Your task to perform on an android device: all mails in gmail Image 0: 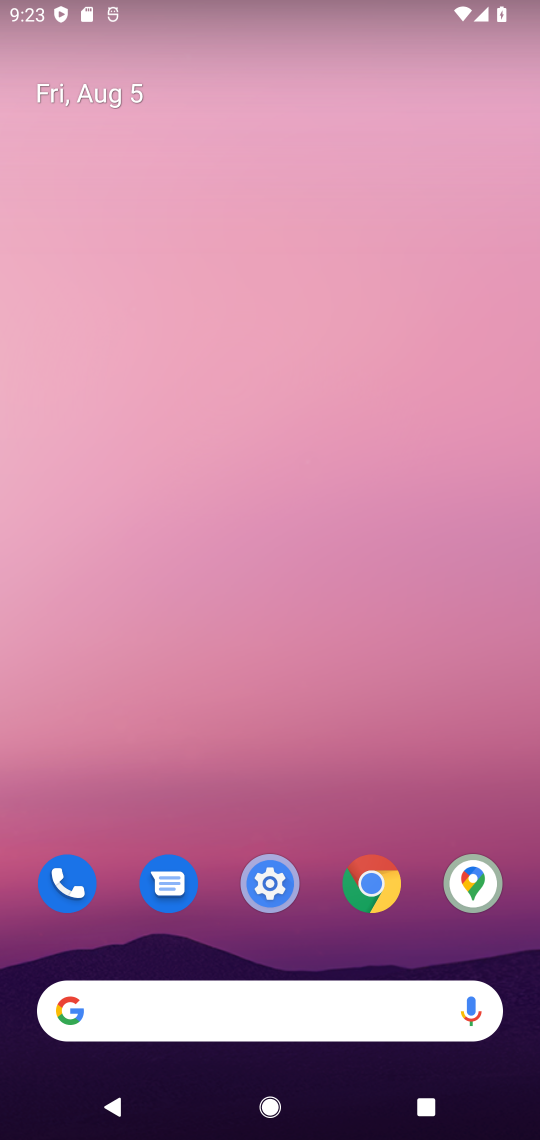
Step 0: drag from (276, 836) to (375, 84)
Your task to perform on an android device: all mails in gmail Image 1: 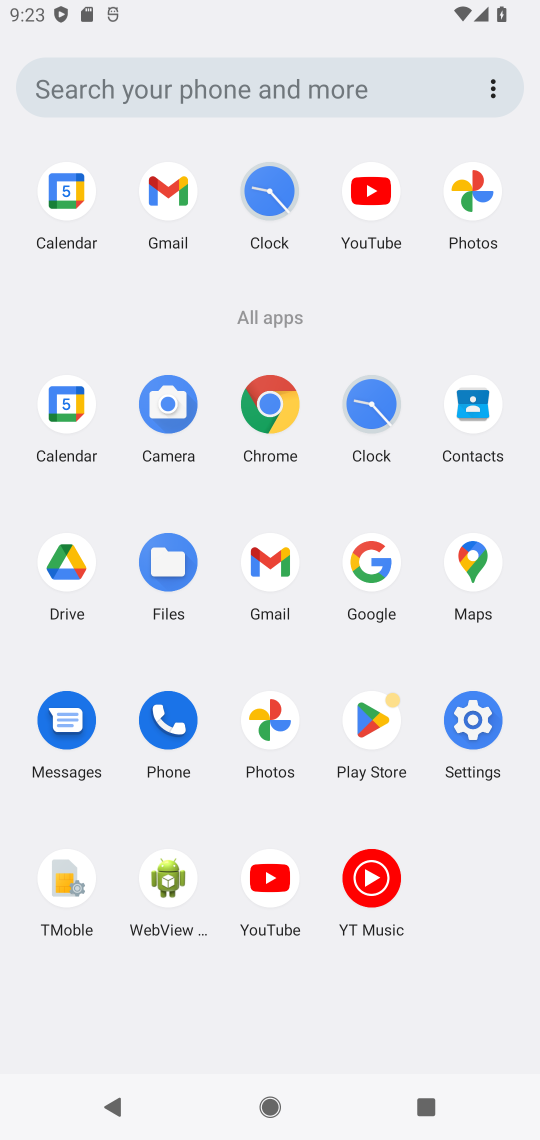
Step 1: click (172, 181)
Your task to perform on an android device: all mails in gmail Image 2: 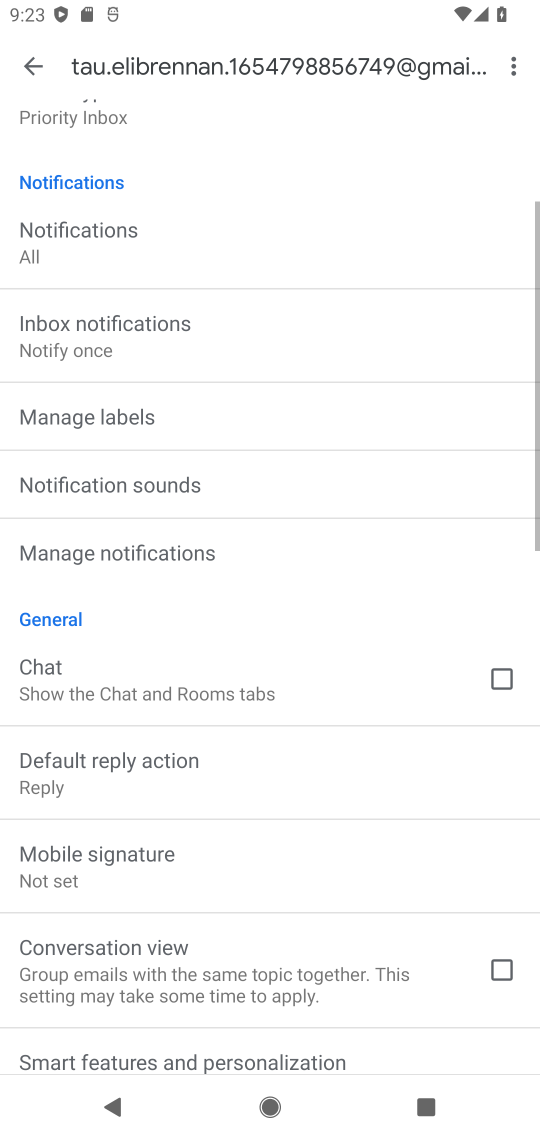
Step 2: click (30, 56)
Your task to perform on an android device: all mails in gmail Image 3: 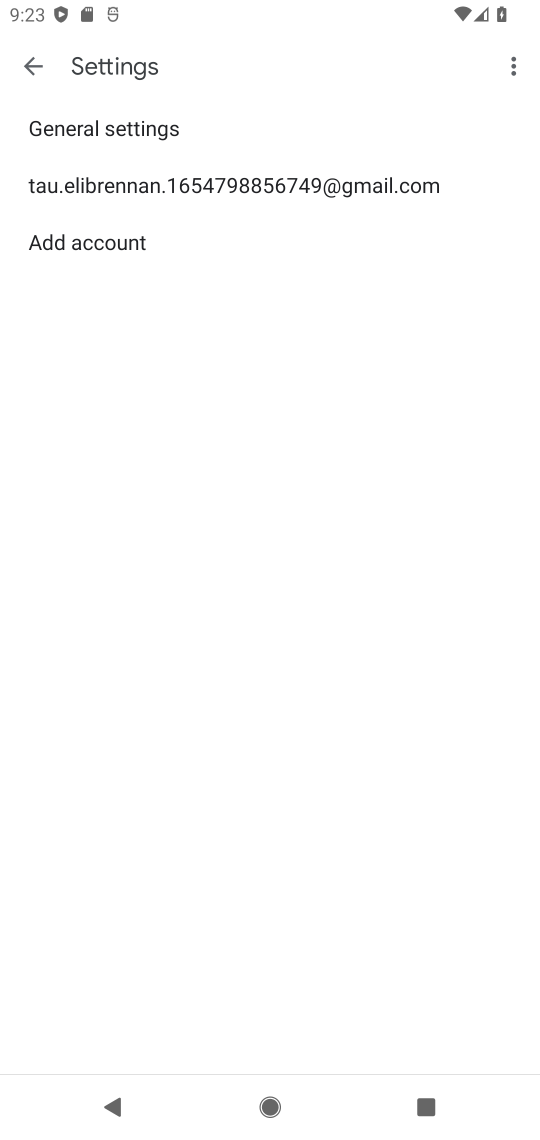
Step 3: click (24, 63)
Your task to perform on an android device: all mails in gmail Image 4: 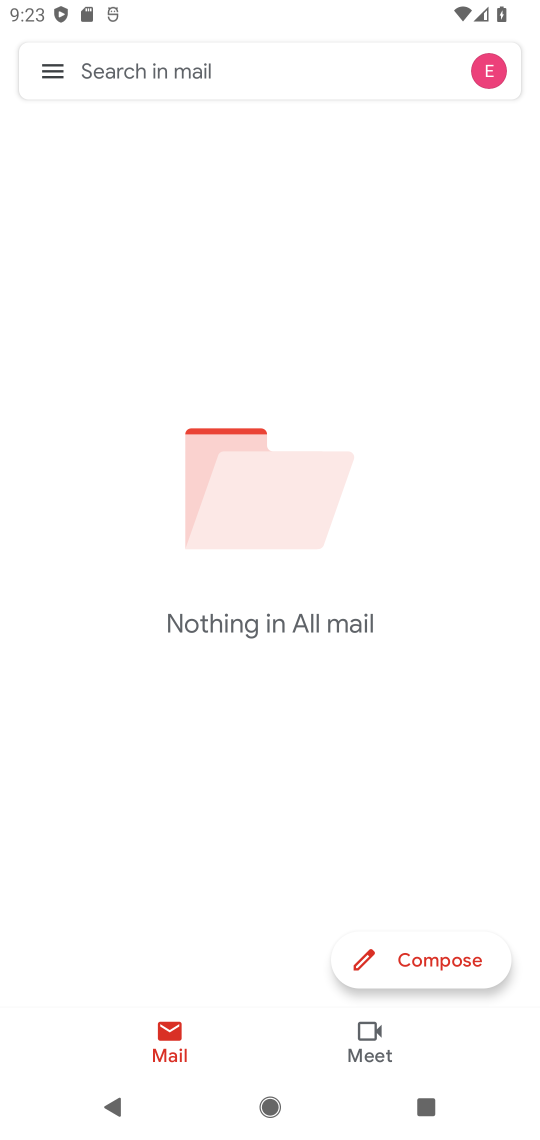
Step 4: task complete